Your task to perform on an android device: turn on improve location accuracy Image 0: 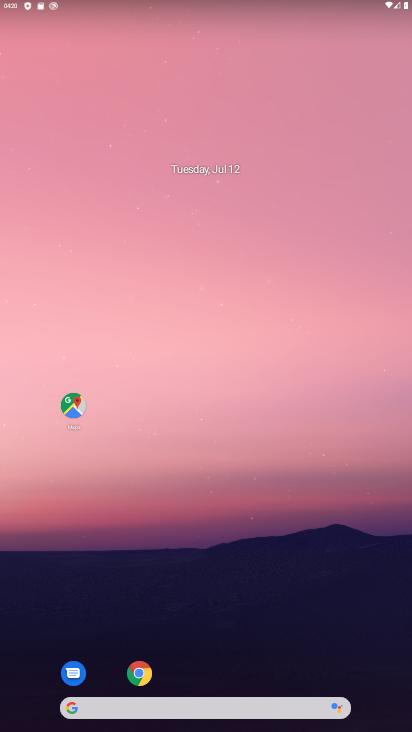
Step 0: drag from (231, 508) to (206, 30)
Your task to perform on an android device: turn on improve location accuracy Image 1: 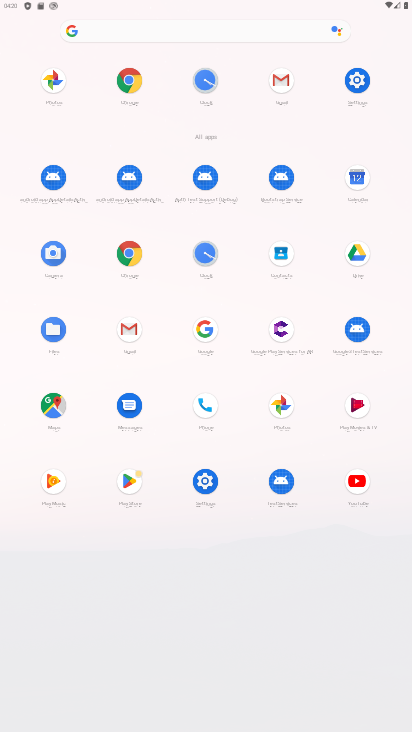
Step 1: click (369, 79)
Your task to perform on an android device: turn on improve location accuracy Image 2: 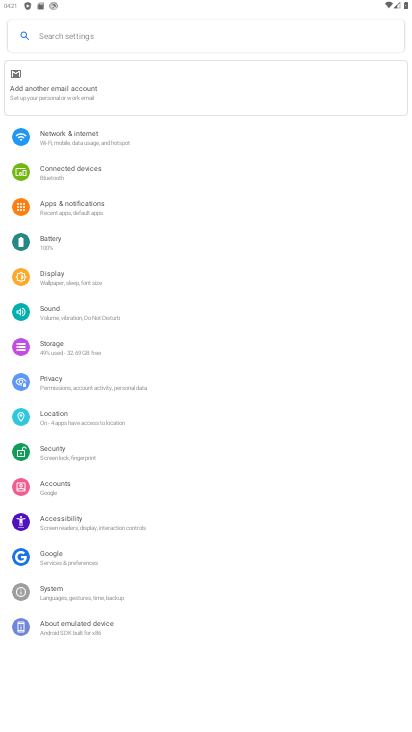
Step 2: click (75, 423)
Your task to perform on an android device: turn on improve location accuracy Image 3: 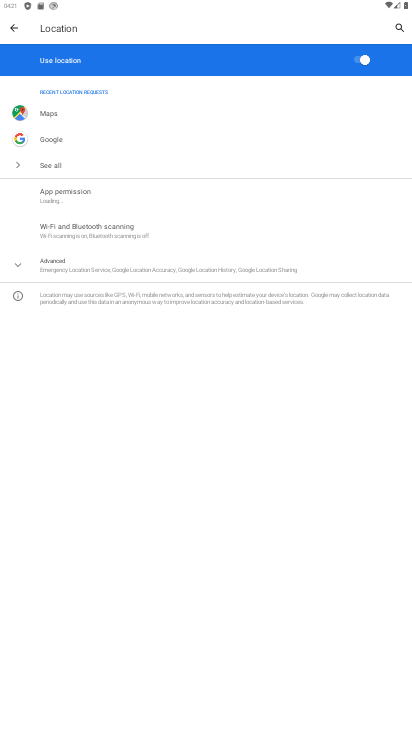
Step 3: click (44, 262)
Your task to perform on an android device: turn on improve location accuracy Image 4: 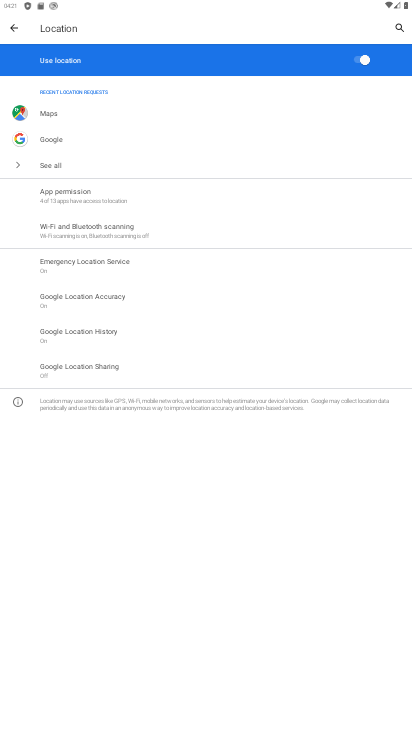
Step 4: click (56, 299)
Your task to perform on an android device: turn on improve location accuracy Image 5: 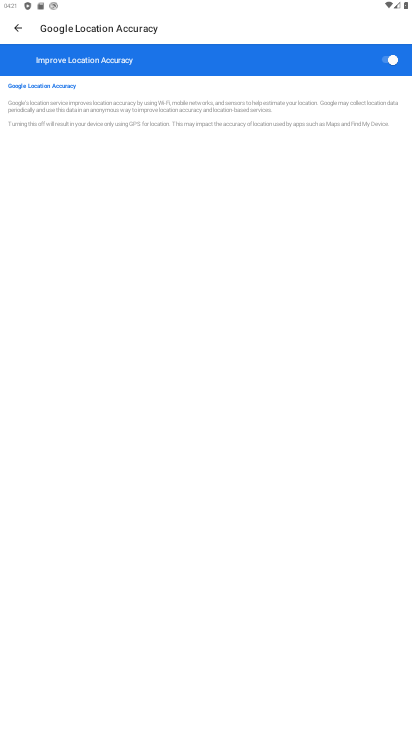
Step 5: task complete